Your task to perform on an android device: turn off sleep mode Image 0: 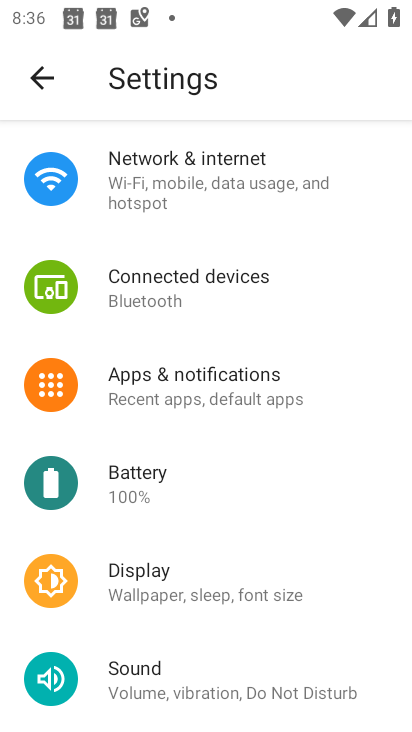
Step 0: click (131, 592)
Your task to perform on an android device: turn off sleep mode Image 1: 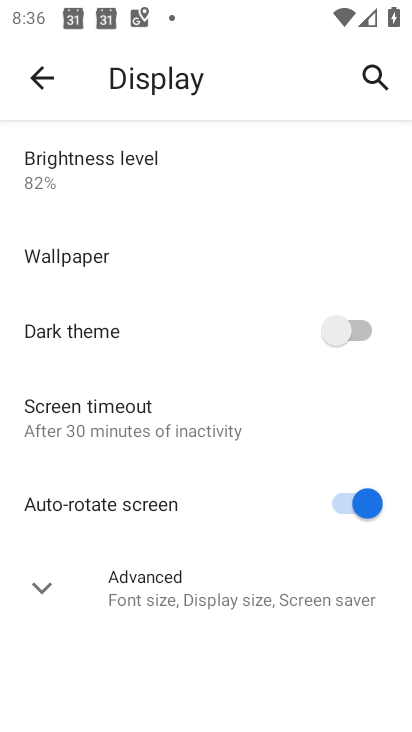
Step 1: click (38, 593)
Your task to perform on an android device: turn off sleep mode Image 2: 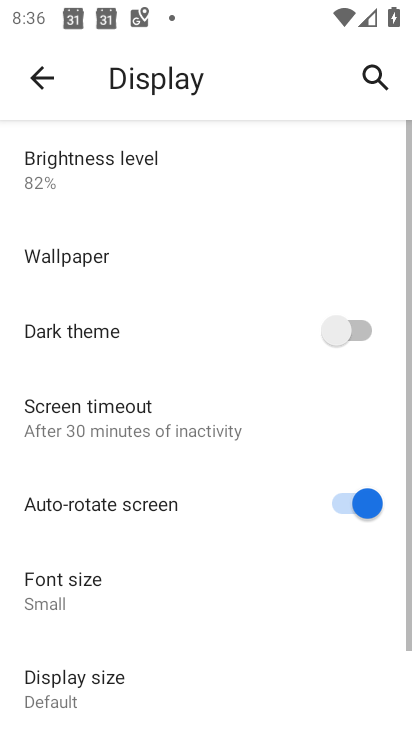
Step 2: task complete